Your task to perform on an android device: Is it going to rain this weekend? Image 0: 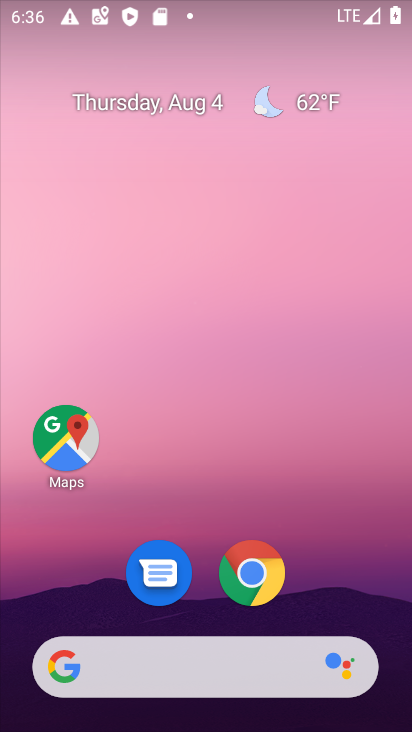
Step 0: press home button
Your task to perform on an android device: Is it going to rain this weekend? Image 1: 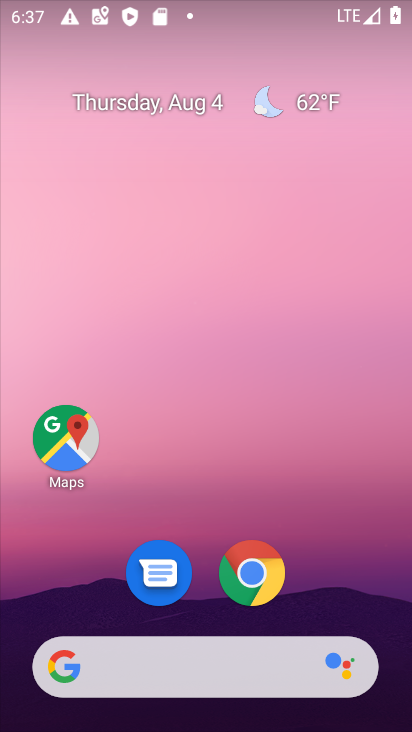
Step 1: click (68, 676)
Your task to perform on an android device: Is it going to rain this weekend? Image 2: 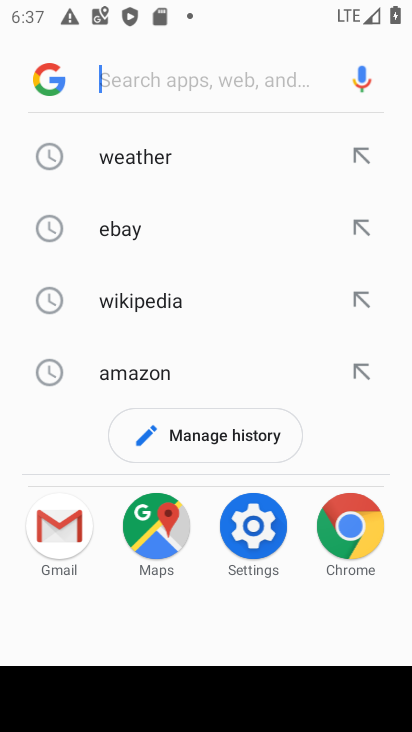
Step 2: type "rain this weekend?"
Your task to perform on an android device: Is it going to rain this weekend? Image 3: 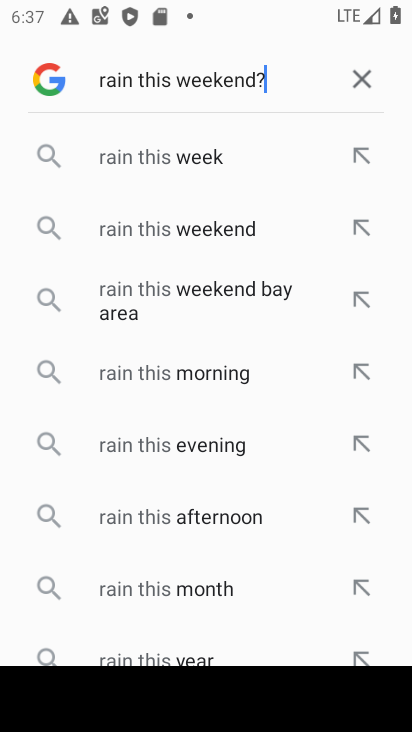
Step 3: press enter
Your task to perform on an android device: Is it going to rain this weekend? Image 4: 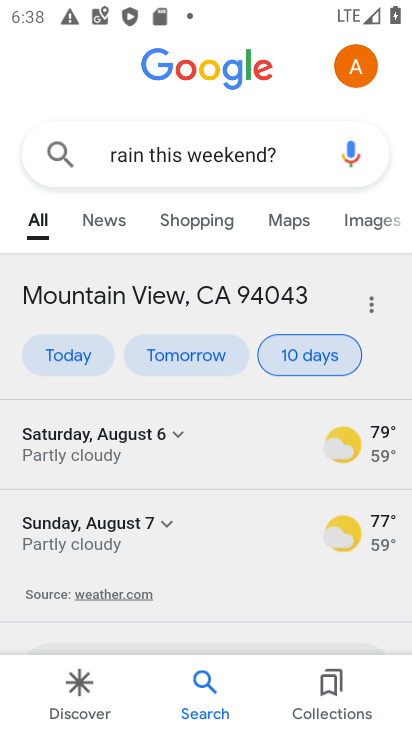
Step 4: task complete